Your task to perform on an android device: turn off wifi Image 0: 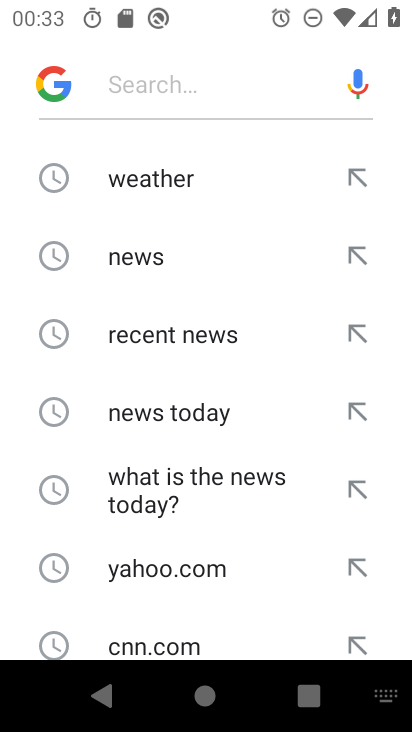
Step 0: press home button
Your task to perform on an android device: turn off wifi Image 1: 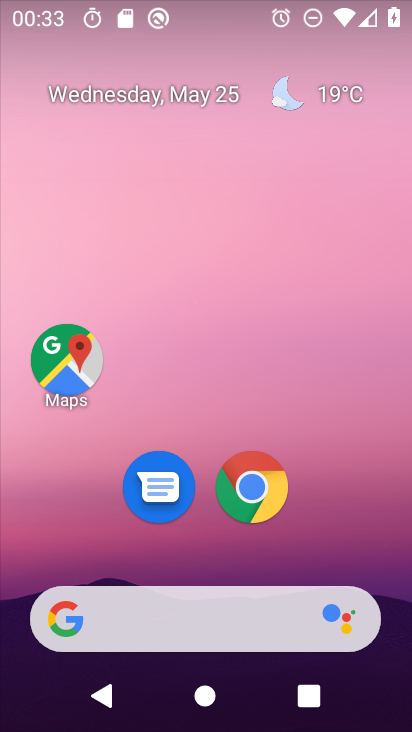
Step 1: drag from (331, 559) to (369, 14)
Your task to perform on an android device: turn off wifi Image 2: 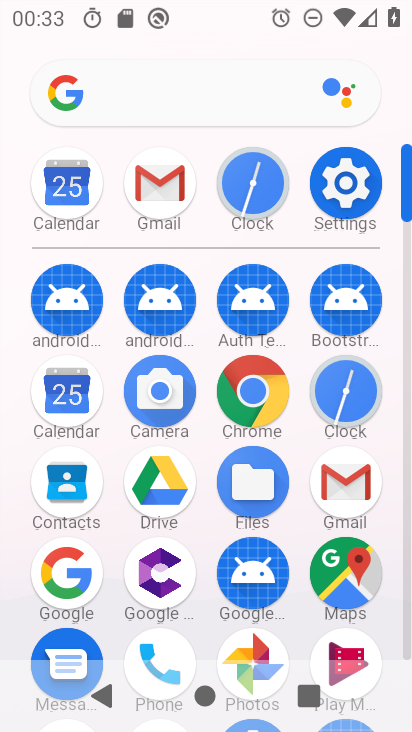
Step 2: click (353, 184)
Your task to perform on an android device: turn off wifi Image 3: 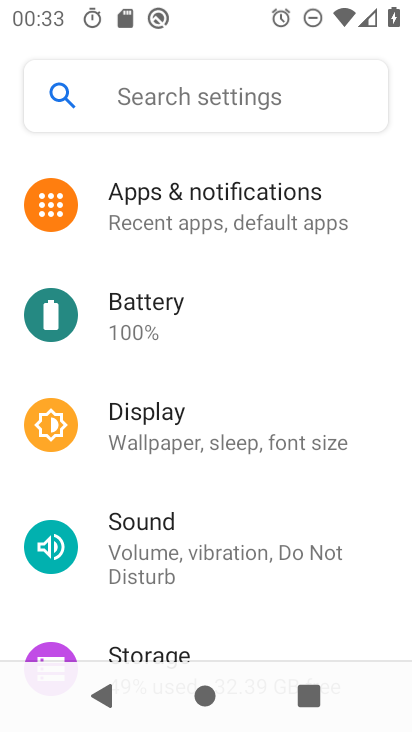
Step 3: drag from (264, 317) to (289, 582)
Your task to perform on an android device: turn off wifi Image 4: 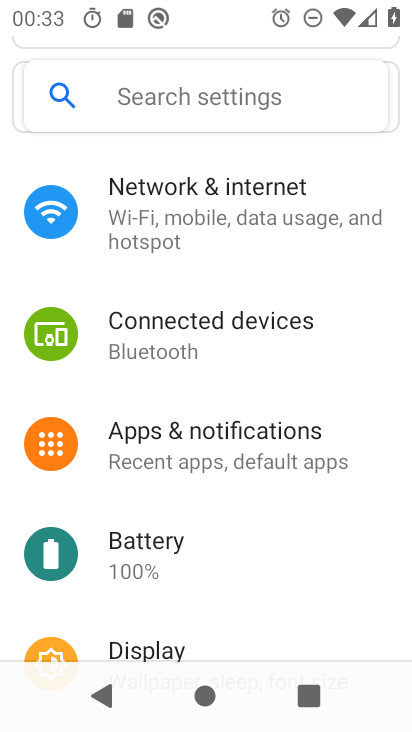
Step 4: click (174, 227)
Your task to perform on an android device: turn off wifi Image 5: 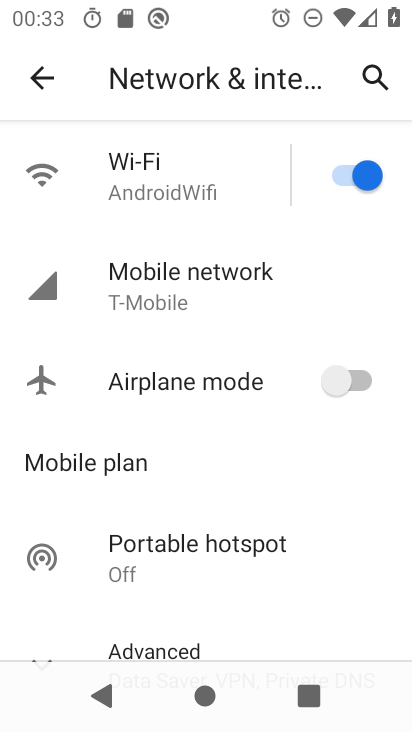
Step 5: click (353, 184)
Your task to perform on an android device: turn off wifi Image 6: 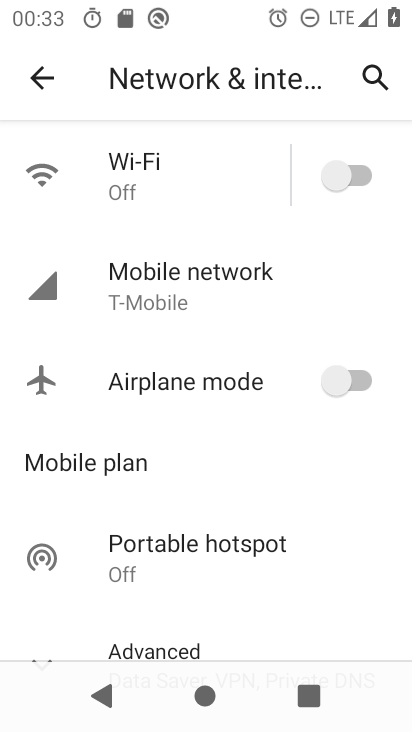
Step 6: task complete